Your task to perform on an android device: set the timer Image 0: 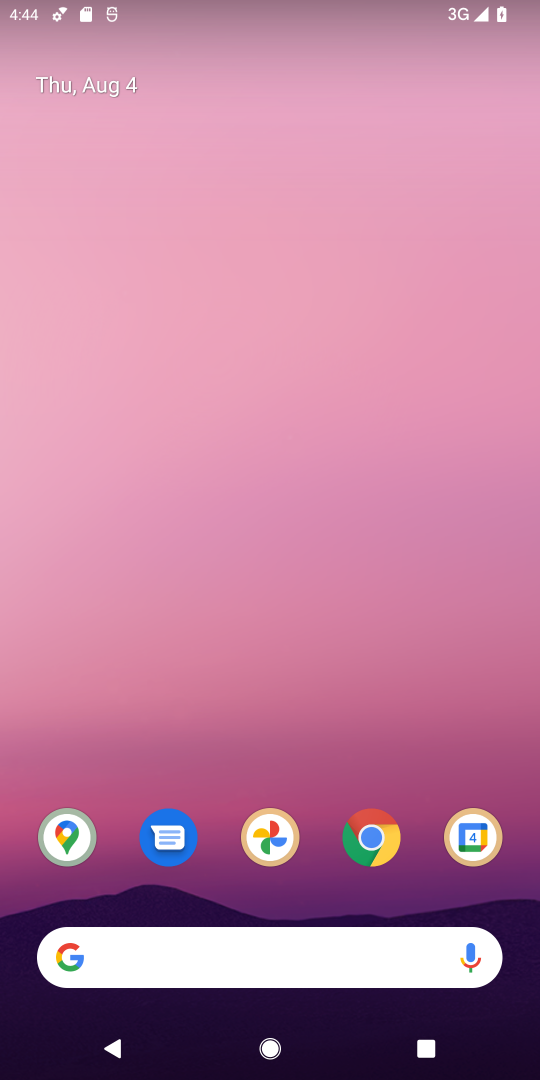
Step 0: drag from (206, 748) to (154, 319)
Your task to perform on an android device: set the timer Image 1: 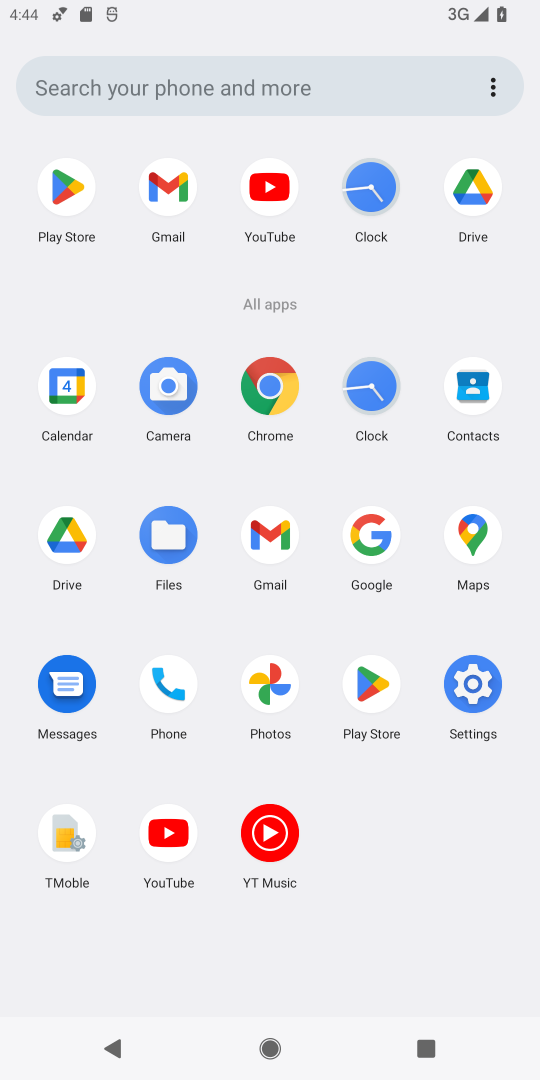
Step 1: click (371, 384)
Your task to perform on an android device: set the timer Image 2: 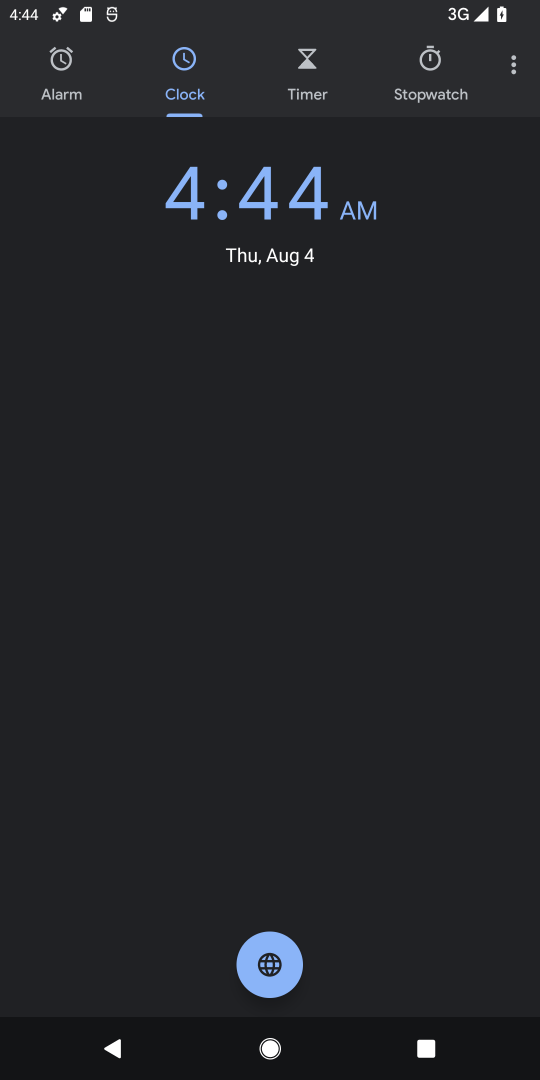
Step 2: click (328, 76)
Your task to perform on an android device: set the timer Image 3: 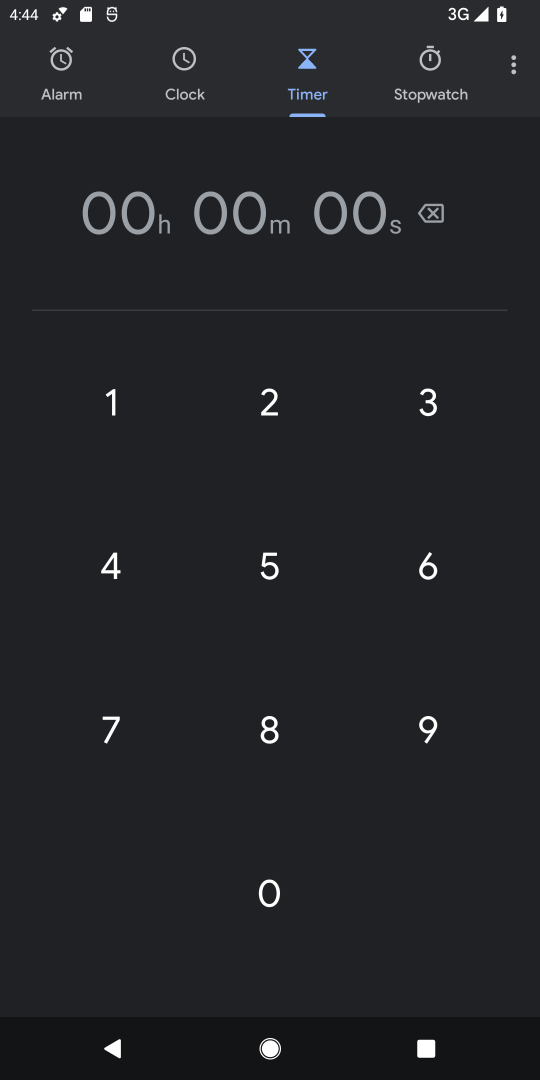
Step 3: click (265, 371)
Your task to perform on an android device: set the timer Image 4: 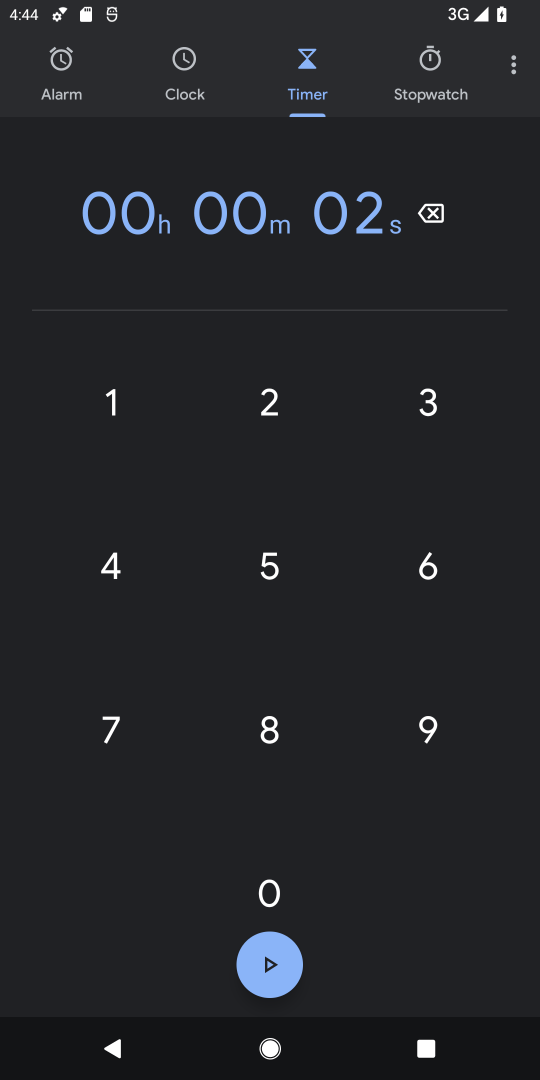
Step 4: click (265, 371)
Your task to perform on an android device: set the timer Image 5: 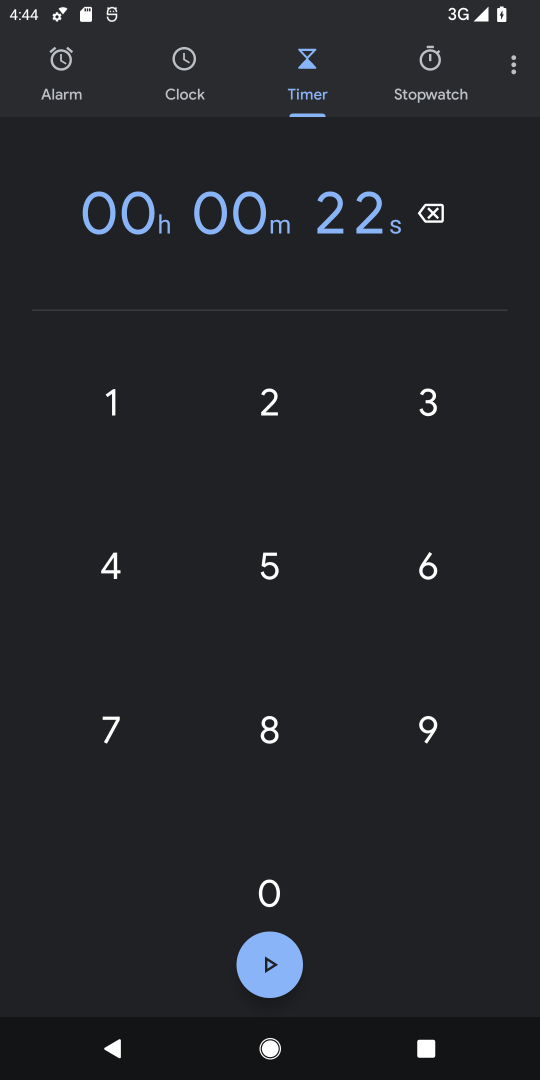
Step 5: click (265, 371)
Your task to perform on an android device: set the timer Image 6: 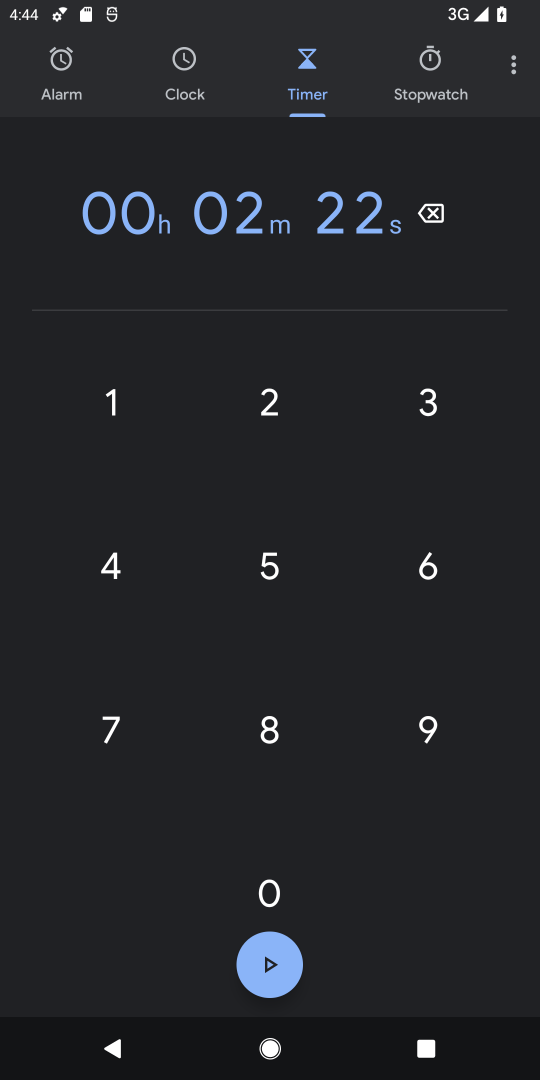
Step 6: click (265, 371)
Your task to perform on an android device: set the timer Image 7: 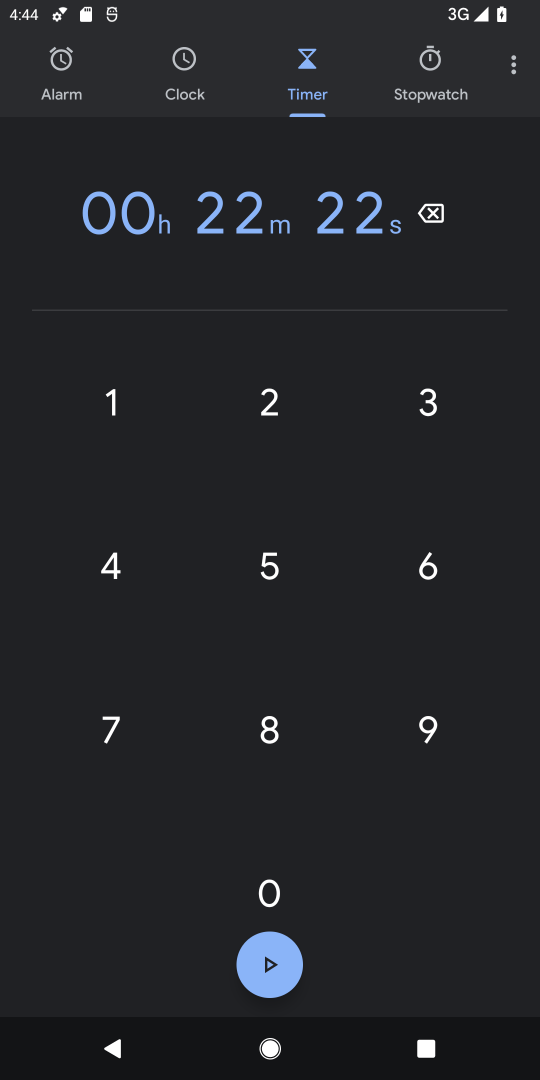
Step 7: click (265, 371)
Your task to perform on an android device: set the timer Image 8: 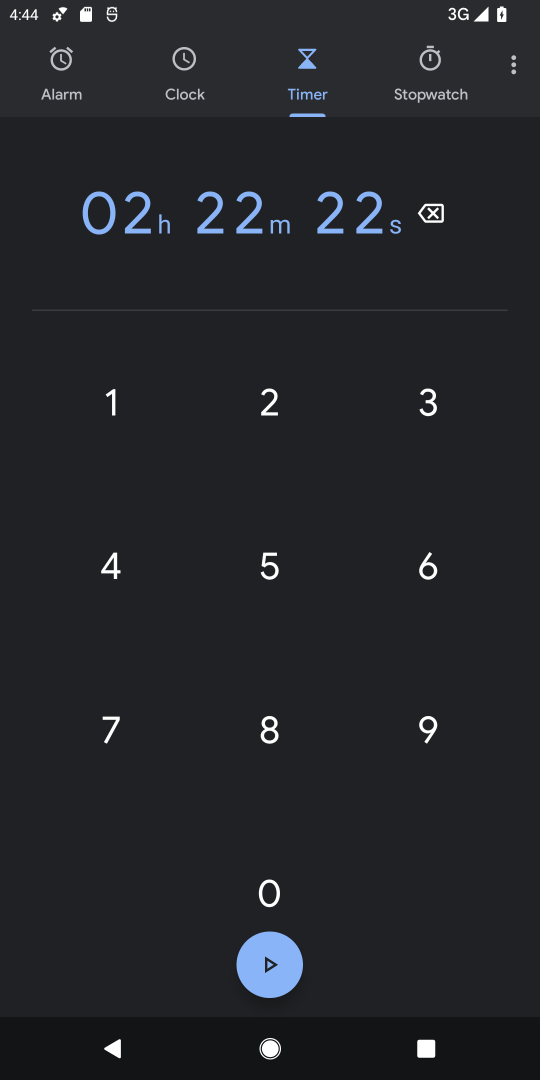
Step 8: click (273, 948)
Your task to perform on an android device: set the timer Image 9: 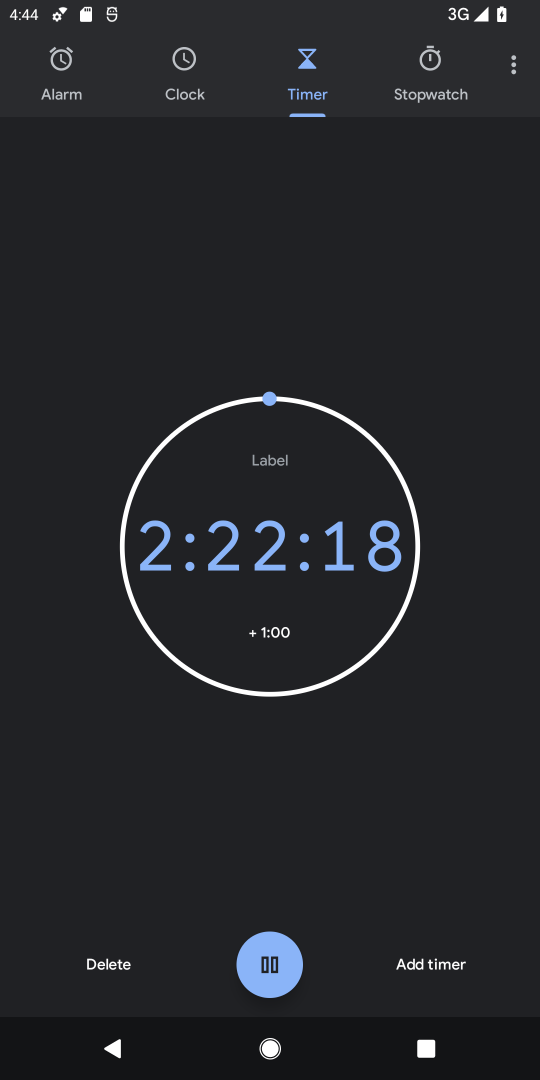
Step 9: task complete